Your task to perform on an android device: What's on my calendar today? Image 0: 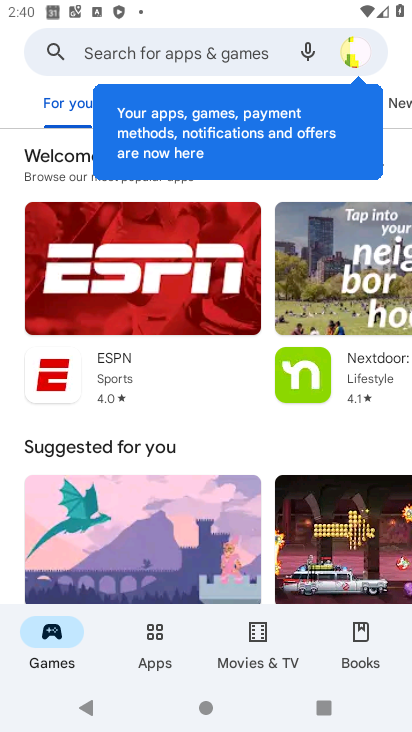
Step 0: press home button
Your task to perform on an android device: What's on my calendar today? Image 1: 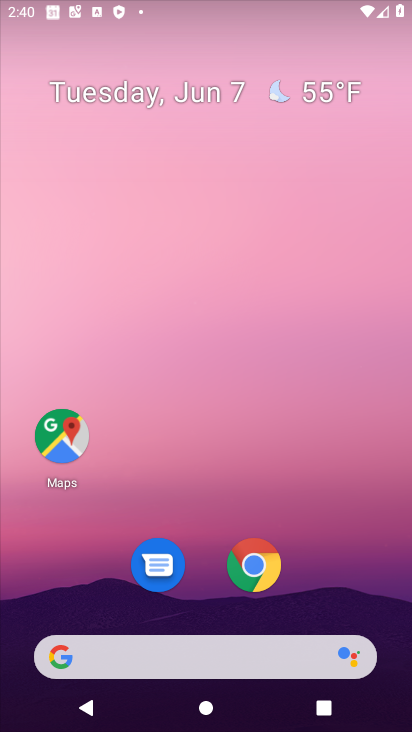
Step 1: drag from (298, 652) to (304, 53)
Your task to perform on an android device: What's on my calendar today? Image 2: 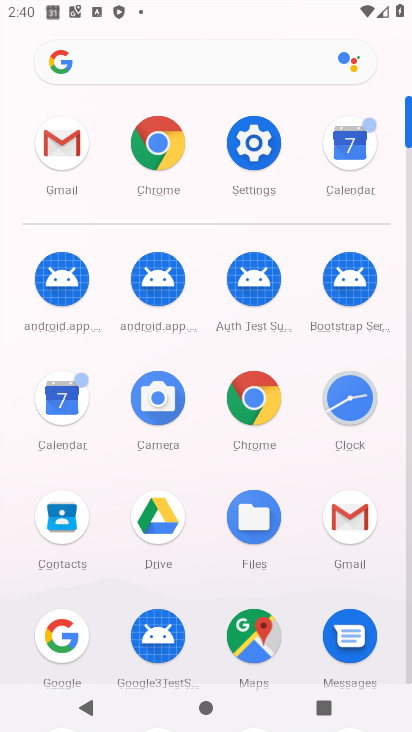
Step 2: click (58, 378)
Your task to perform on an android device: What's on my calendar today? Image 3: 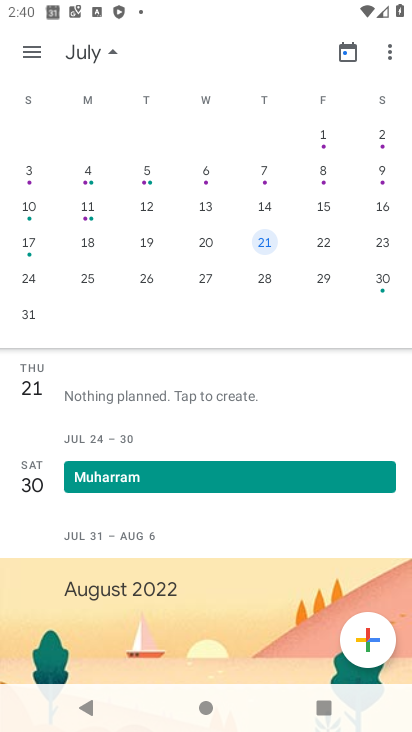
Step 3: task complete